Your task to perform on an android device: delete the emails in spam in the gmail app Image 0: 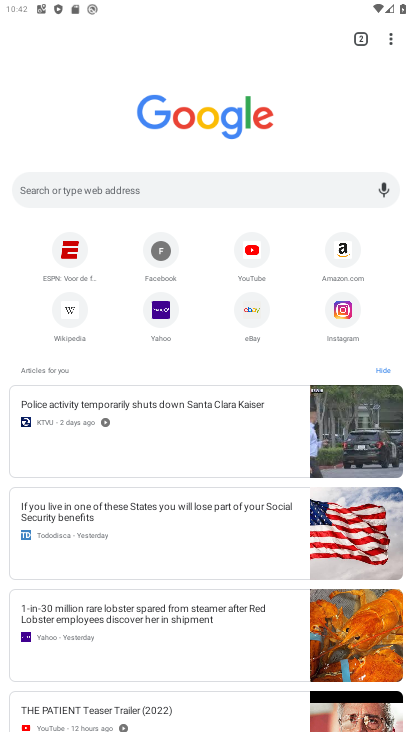
Step 0: press home button
Your task to perform on an android device: delete the emails in spam in the gmail app Image 1: 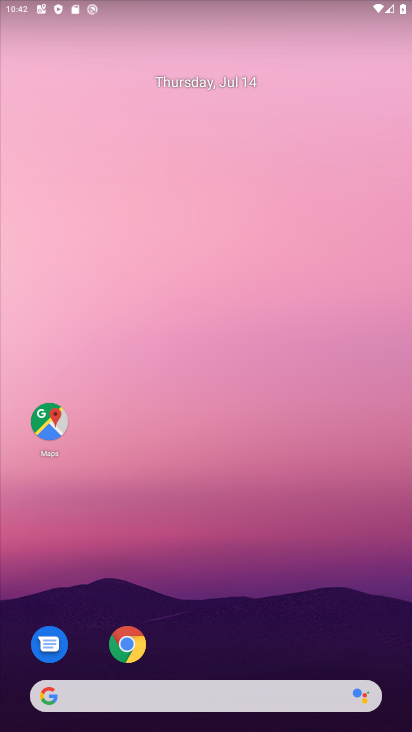
Step 1: drag from (201, 684) to (211, 100)
Your task to perform on an android device: delete the emails in spam in the gmail app Image 2: 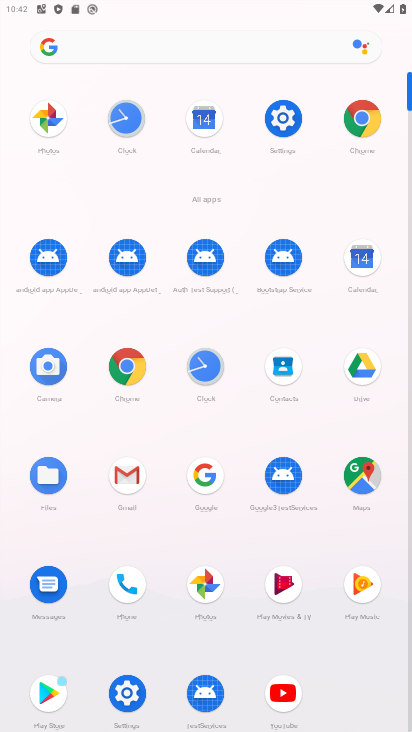
Step 2: click (133, 479)
Your task to perform on an android device: delete the emails in spam in the gmail app Image 3: 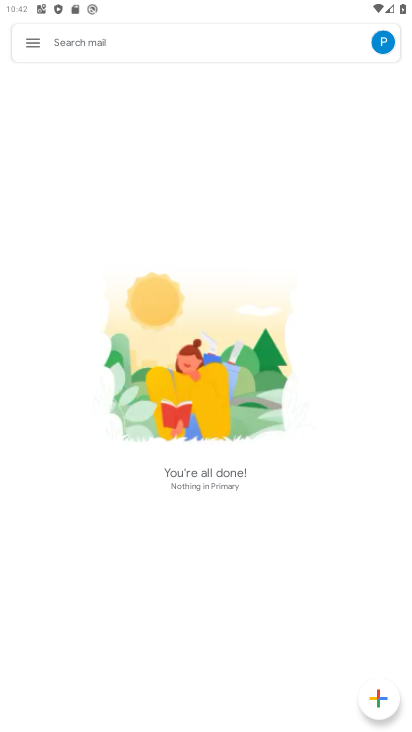
Step 3: click (33, 46)
Your task to perform on an android device: delete the emails in spam in the gmail app Image 4: 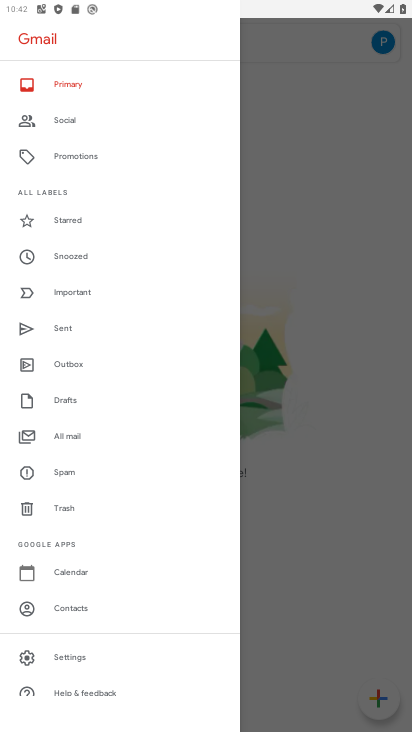
Step 4: click (57, 471)
Your task to perform on an android device: delete the emails in spam in the gmail app Image 5: 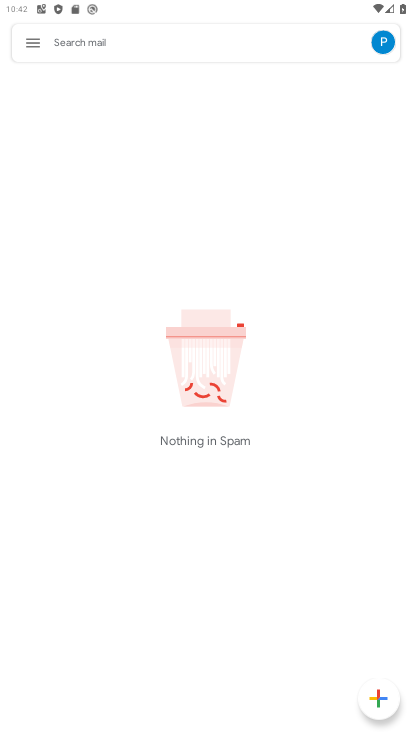
Step 5: task complete